Your task to perform on an android device: Open Chrome and go to settings Image 0: 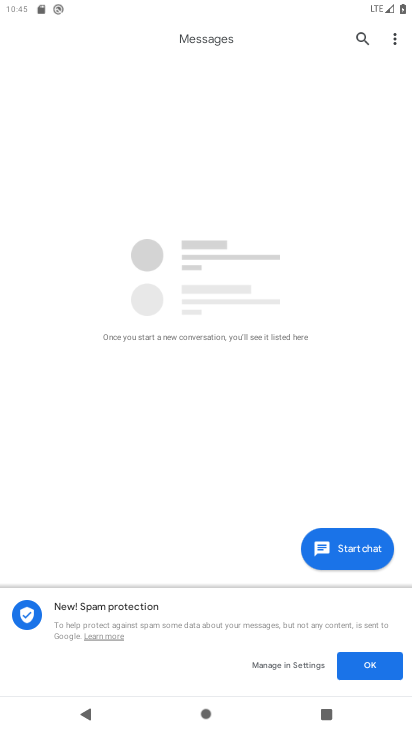
Step 0: press home button
Your task to perform on an android device: Open Chrome and go to settings Image 1: 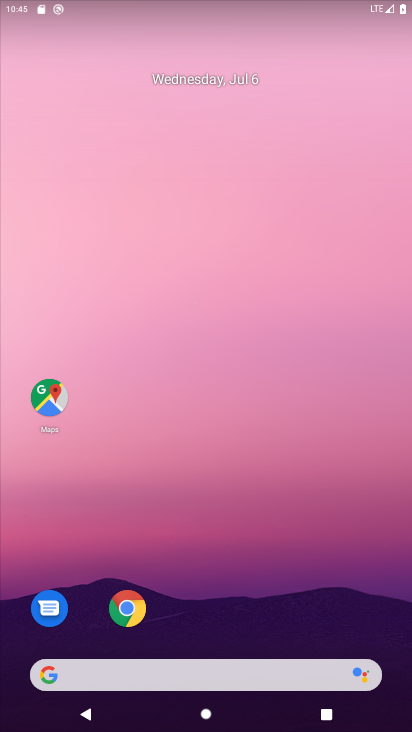
Step 1: click (132, 608)
Your task to perform on an android device: Open Chrome and go to settings Image 2: 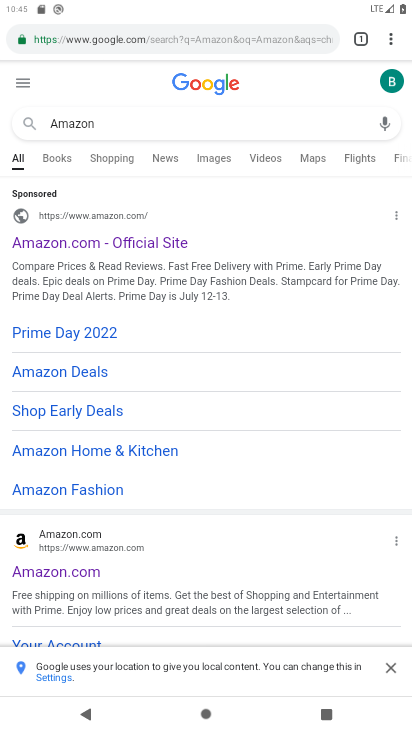
Step 2: click (400, 31)
Your task to perform on an android device: Open Chrome and go to settings Image 3: 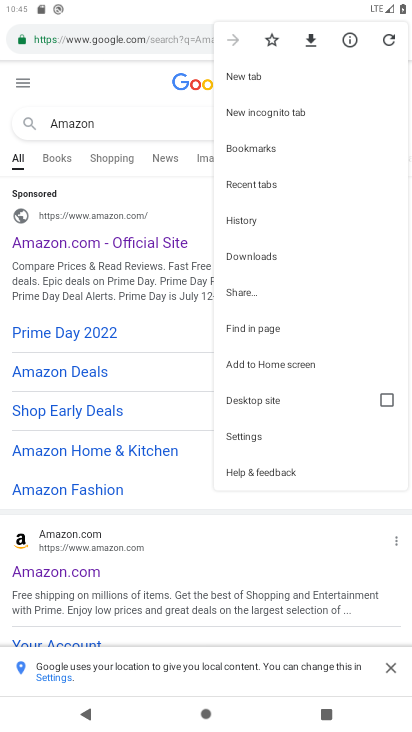
Step 3: click (246, 430)
Your task to perform on an android device: Open Chrome and go to settings Image 4: 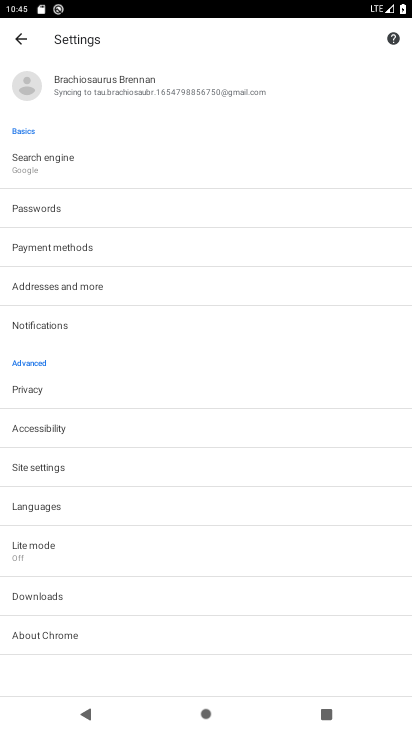
Step 4: task complete